Your task to perform on an android device: delete the emails in spam in the gmail app Image 0: 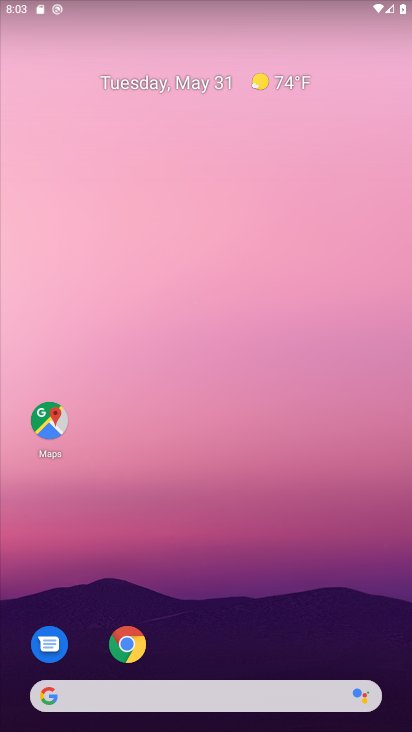
Step 0: press home button
Your task to perform on an android device: delete the emails in spam in the gmail app Image 1: 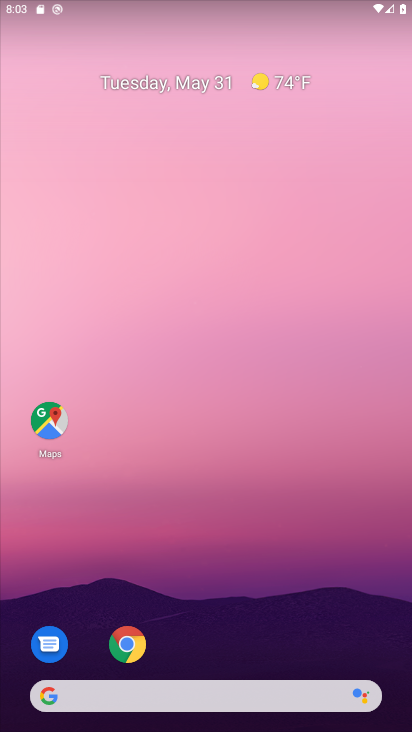
Step 1: drag from (224, 649) to (227, 132)
Your task to perform on an android device: delete the emails in spam in the gmail app Image 2: 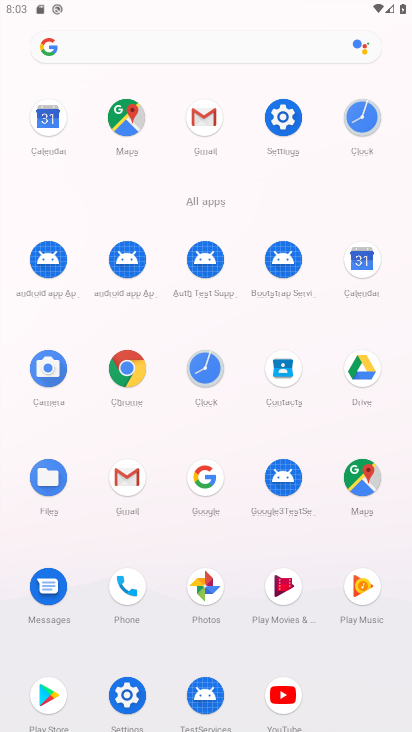
Step 2: click (128, 460)
Your task to perform on an android device: delete the emails in spam in the gmail app Image 3: 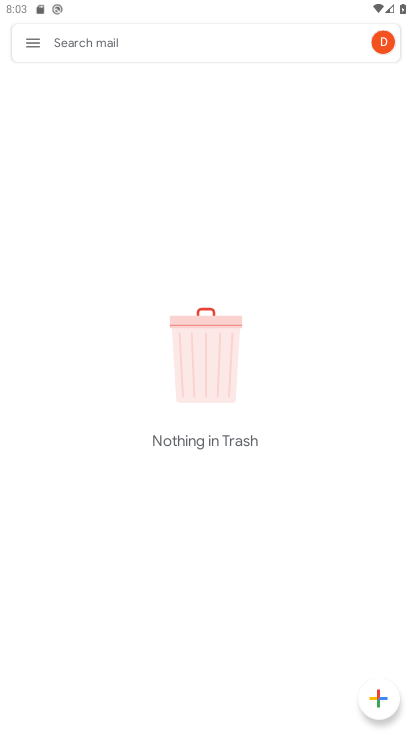
Step 3: click (34, 36)
Your task to perform on an android device: delete the emails in spam in the gmail app Image 4: 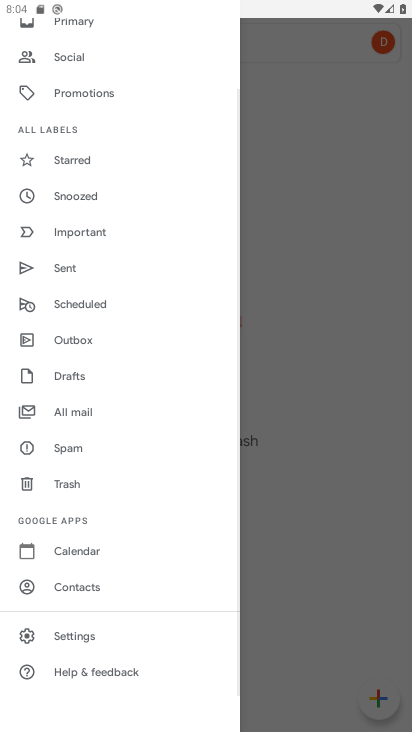
Step 4: click (78, 443)
Your task to perform on an android device: delete the emails in spam in the gmail app Image 5: 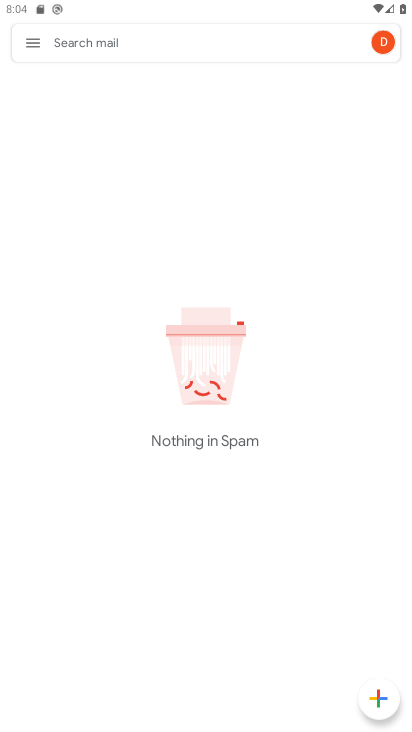
Step 5: task complete